Your task to perform on an android device: open a bookmark in the chrome app Image 0: 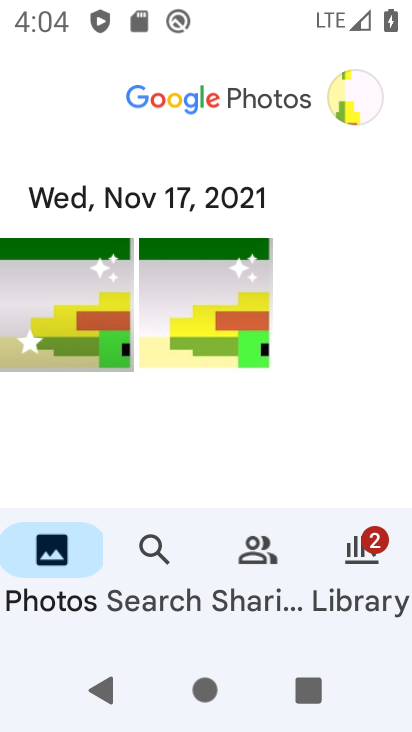
Step 0: press home button
Your task to perform on an android device: open a bookmark in the chrome app Image 1: 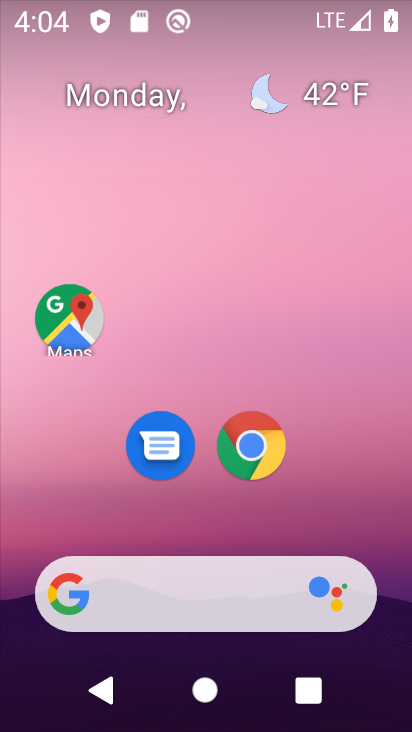
Step 1: drag from (6, 475) to (195, 11)
Your task to perform on an android device: open a bookmark in the chrome app Image 2: 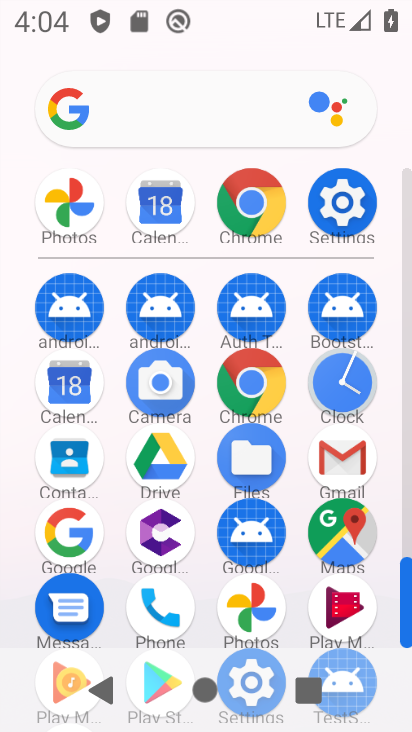
Step 2: click (259, 379)
Your task to perform on an android device: open a bookmark in the chrome app Image 3: 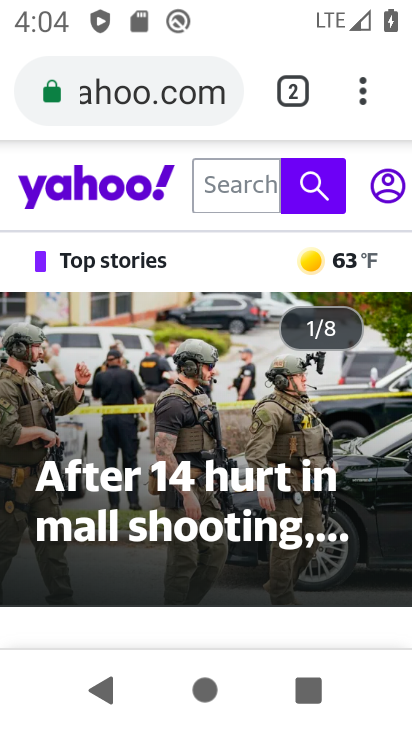
Step 3: click (367, 78)
Your task to perform on an android device: open a bookmark in the chrome app Image 4: 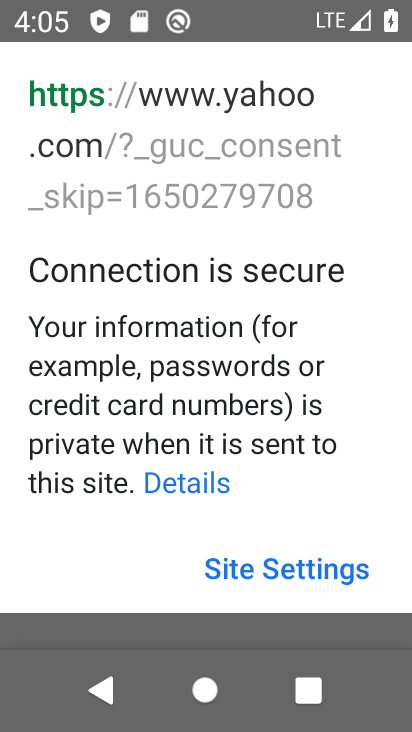
Step 4: click (176, 635)
Your task to perform on an android device: open a bookmark in the chrome app Image 5: 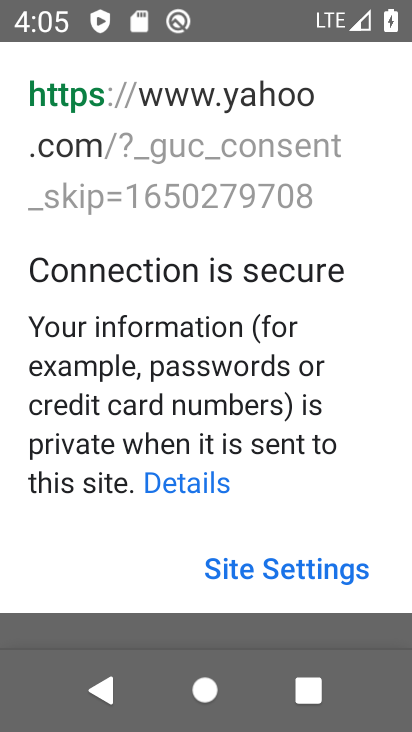
Step 5: click (209, 617)
Your task to perform on an android device: open a bookmark in the chrome app Image 6: 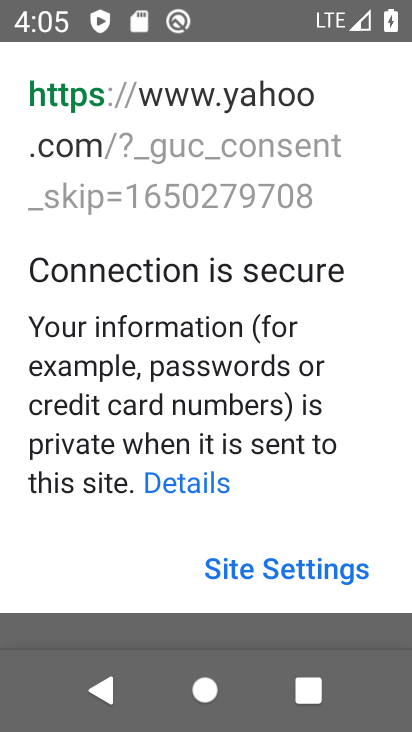
Step 6: click (102, 620)
Your task to perform on an android device: open a bookmark in the chrome app Image 7: 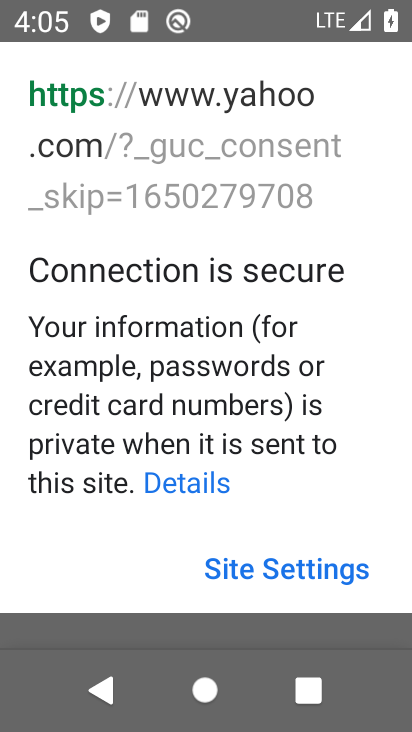
Step 7: press back button
Your task to perform on an android device: open a bookmark in the chrome app Image 8: 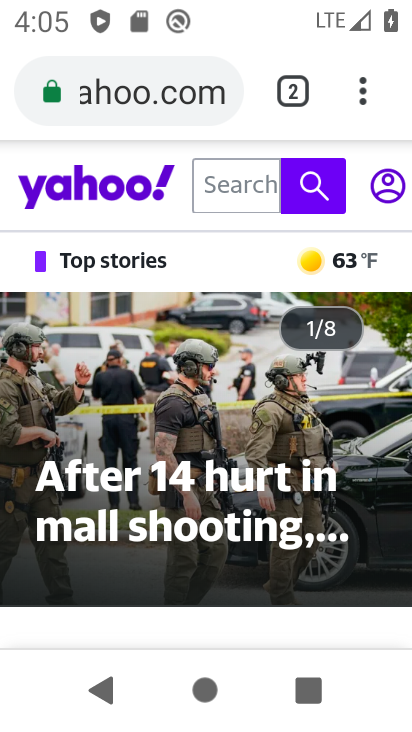
Step 8: click (362, 85)
Your task to perform on an android device: open a bookmark in the chrome app Image 9: 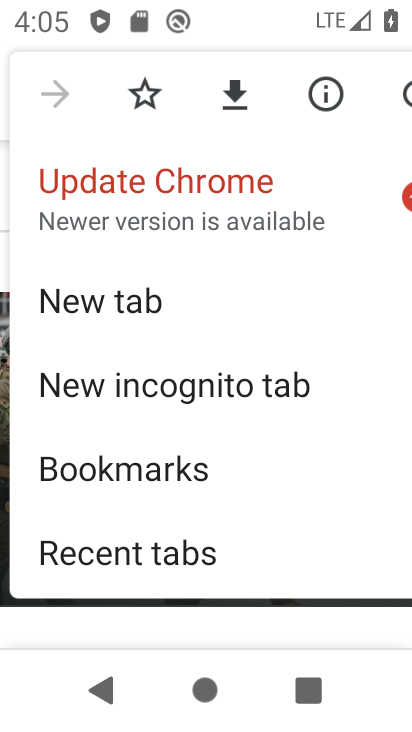
Step 9: click (217, 500)
Your task to perform on an android device: open a bookmark in the chrome app Image 10: 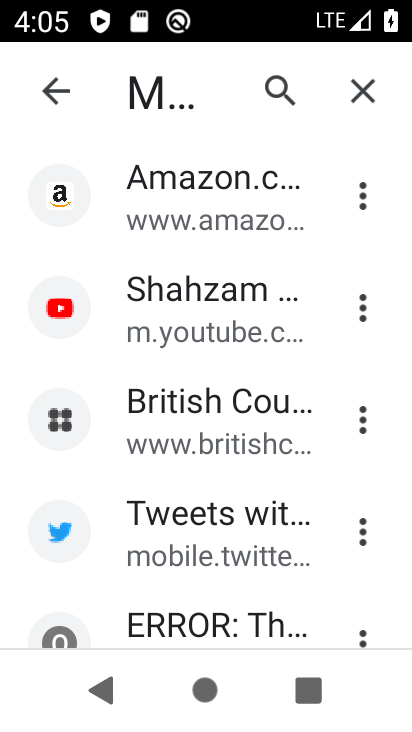
Step 10: task complete